Your task to perform on an android device: Go to calendar. Show me events next week Image 0: 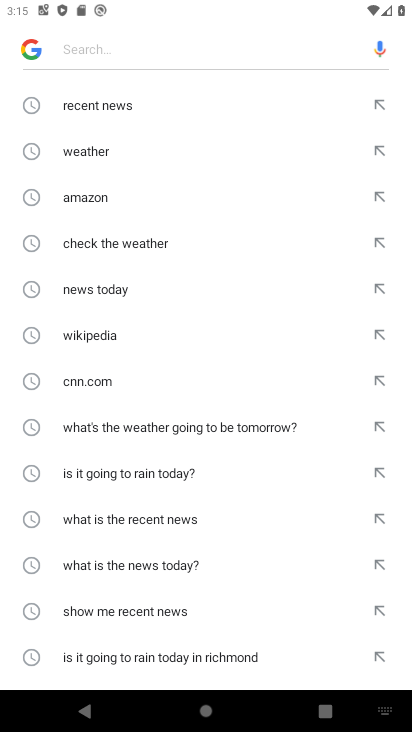
Step 0: press home button
Your task to perform on an android device: Go to calendar. Show me events next week Image 1: 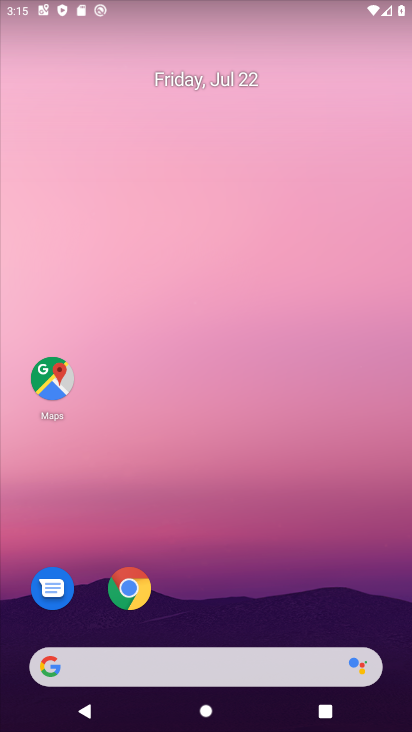
Step 1: drag from (188, 571) to (217, 133)
Your task to perform on an android device: Go to calendar. Show me events next week Image 2: 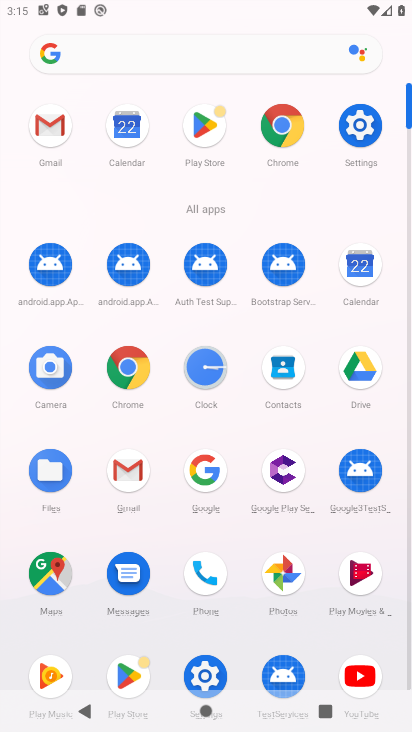
Step 2: click (351, 266)
Your task to perform on an android device: Go to calendar. Show me events next week Image 3: 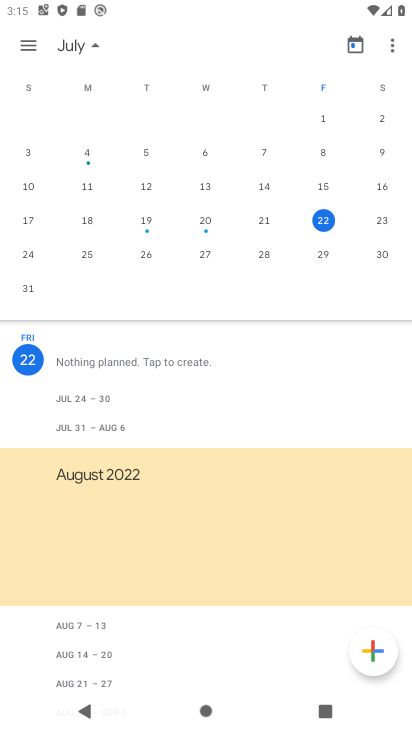
Step 3: click (323, 258)
Your task to perform on an android device: Go to calendar. Show me events next week Image 4: 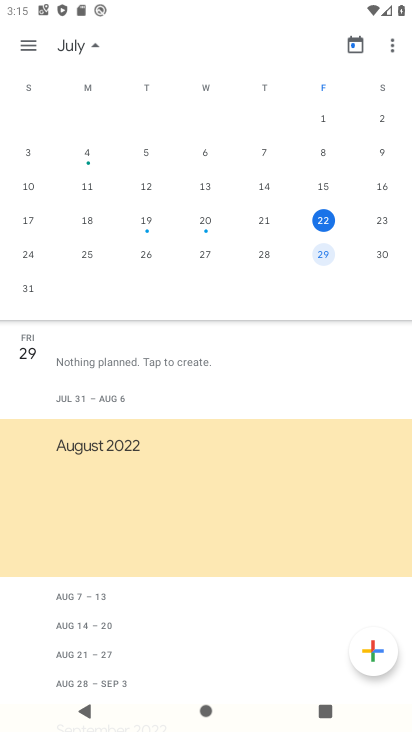
Step 4: click (277, 255)
Your task to perform on an android device: Go to calendar. Show me events next week Image 5: 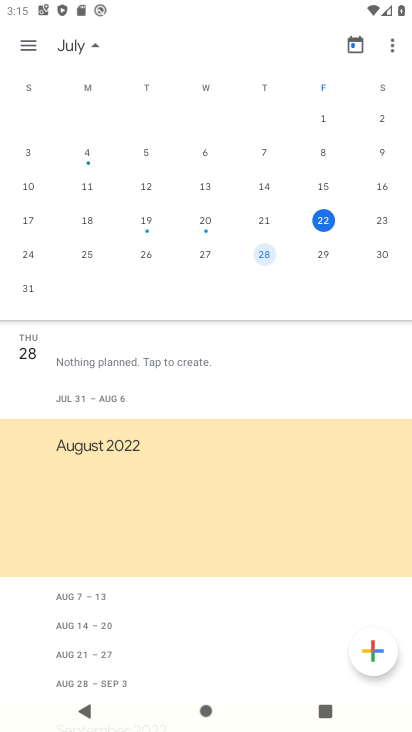
Step 5: click (198, 260)
Your task to perform on an android device: Go to calendar. Show me events next week Image 6: 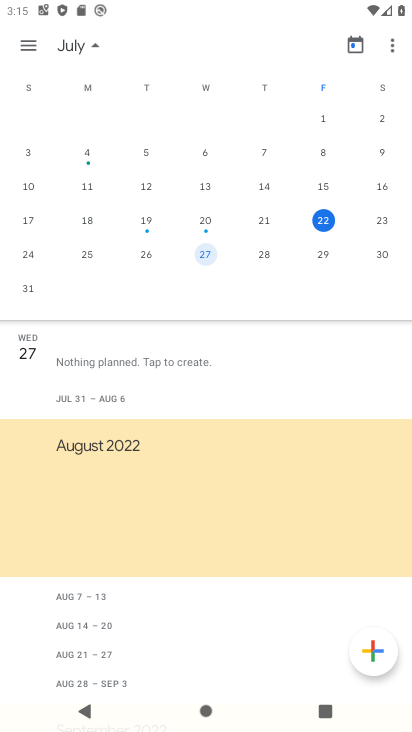
Step 6: task complete